Your task to perform on an android device: Go to Wikipedia Image 0: 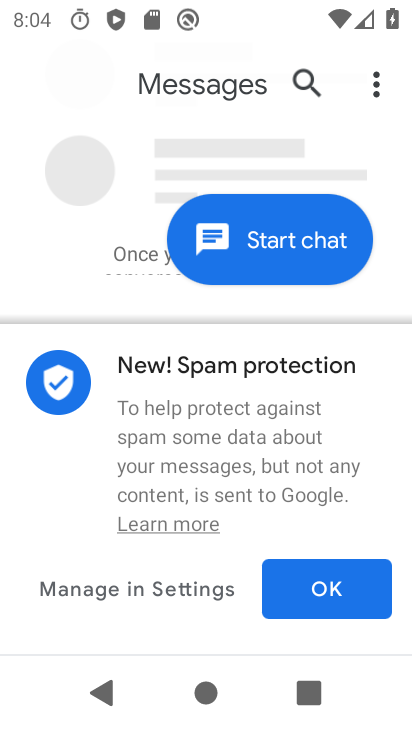
Step 0: press back button
Your task to perform on an android device: Go to Wikipedia Image 1: 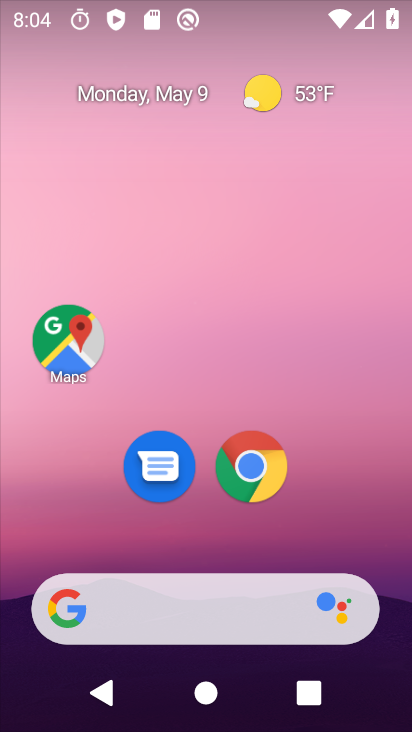
Step 1: click (257, 472)
Your task to perform on an android device: Go to Wikipedia Image 2: 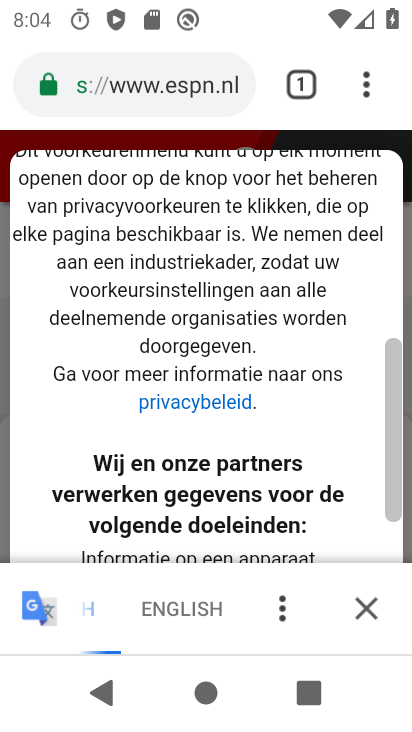
Step 2: click (182, 74)
Your task to perform on an android device: Go to Wikipedia Image 3: 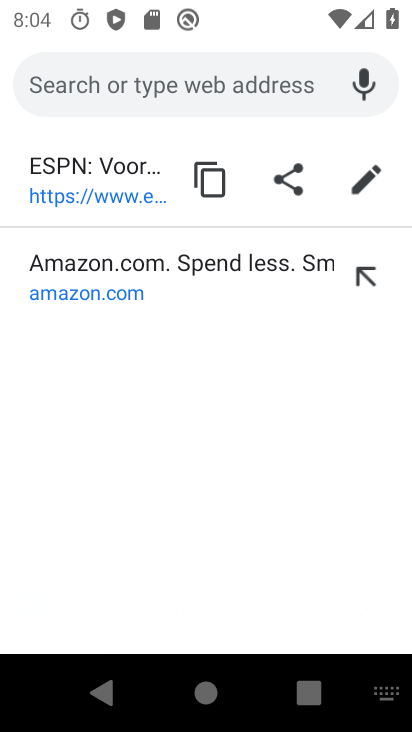
Step 3: click (184, 81)
Your task to perform on an android device: Go to Wikipedia Image 4: 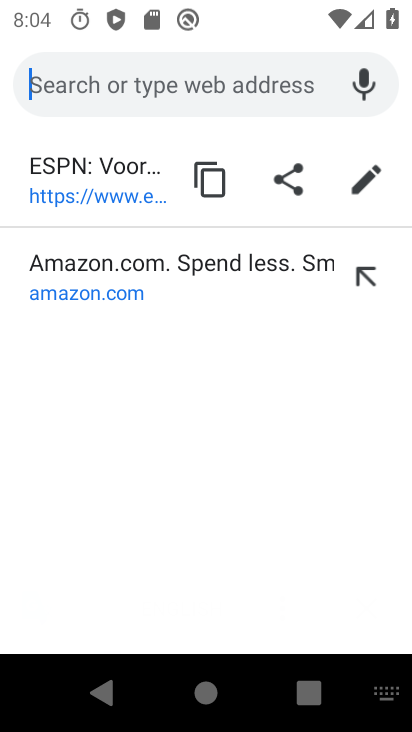
Step 4: type "Wikipedia"
Your task to perform on an android device: Go to Wikipedia Image 5: 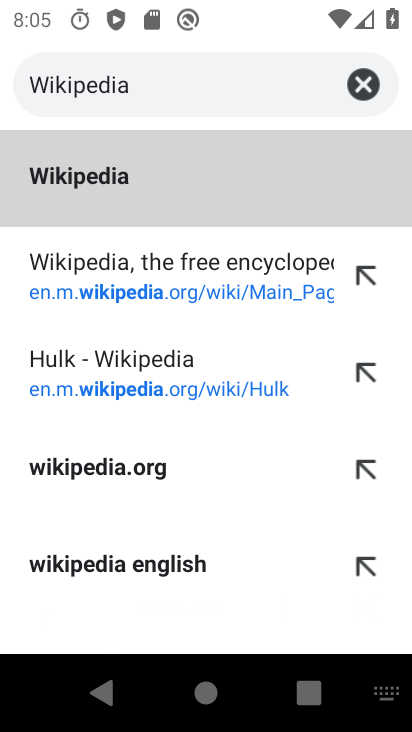
Step 5: click (287, 201)
Your task to perform on an android device: Go to Wikipedia Image 6: 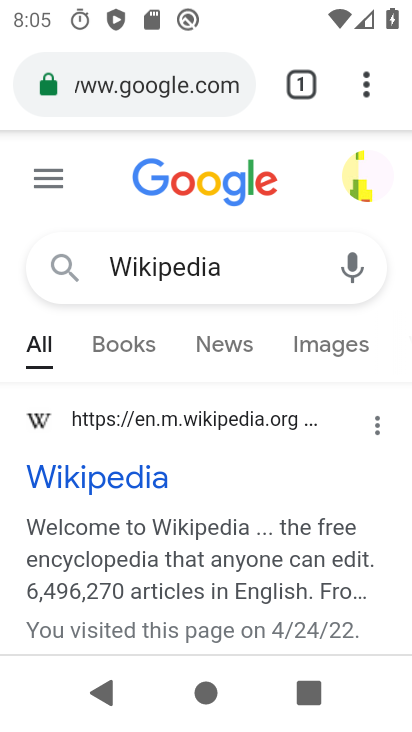
Step 6: click (152, 476)
Your task to perform on an android device: Go to Wikipedia Image 7: 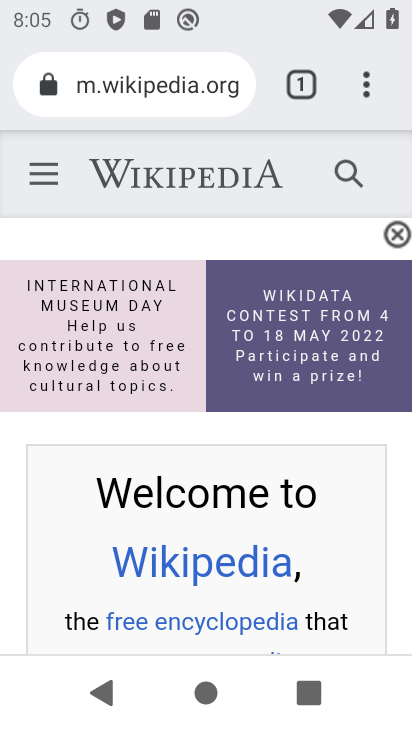
Step 7: task complete